Your task to perform on an android device: Go to Google maps Image 0: 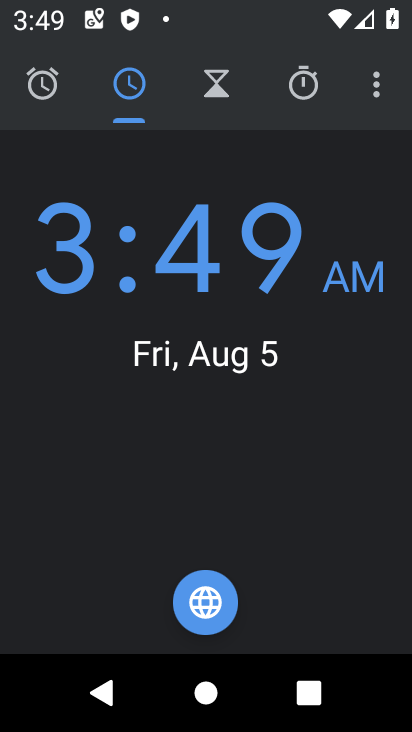
Step 0: press home button
Your task to perform on an android device: Go to Google maps Image 1: 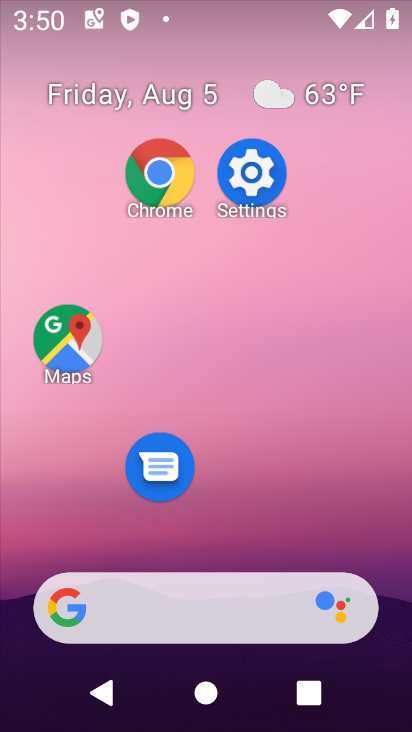
Step 1: drag from (257, 550) to (212, 16)
Your task to perform on an android device: Go to Google maps Image 2: 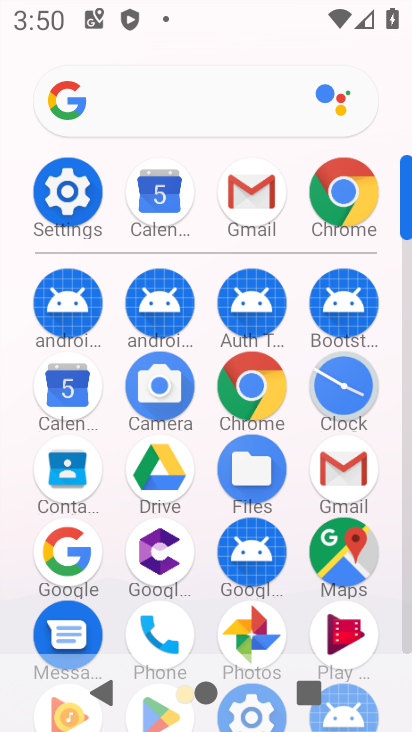
Step 2: click (342, 541)
Your task to perform on an android device: Go to Google maps Image 3: 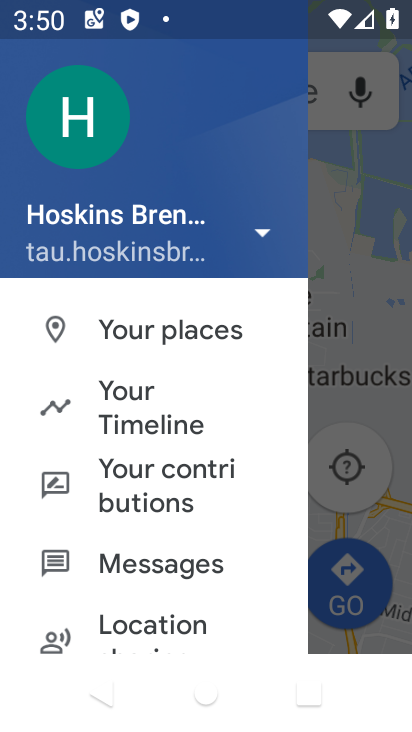
Step 3: click (335, 278)
Your task to perform on an android device: Go to Google maps Image 4: 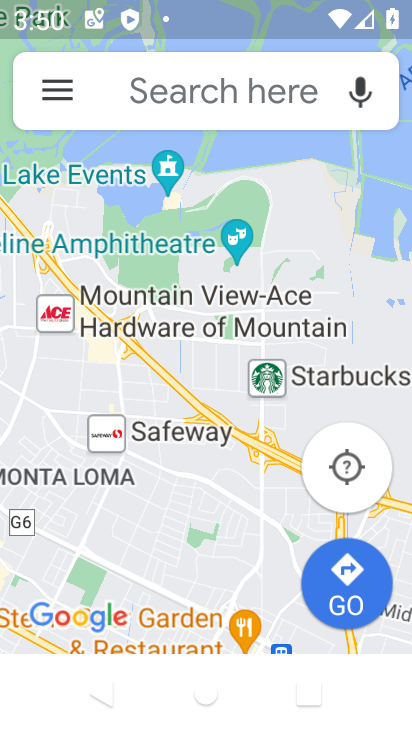
Step 4: task complete